Your task to perform on an android device: Open calendar and show me the first week of next month Image 0: 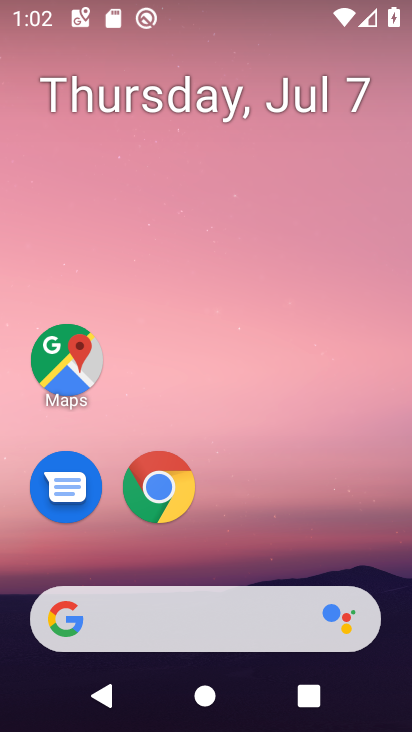
Step 0: drag from (358, 527) to (361, 92)
Your task to perform on an android device: Open calendar and show me the first week of next month Image 1: 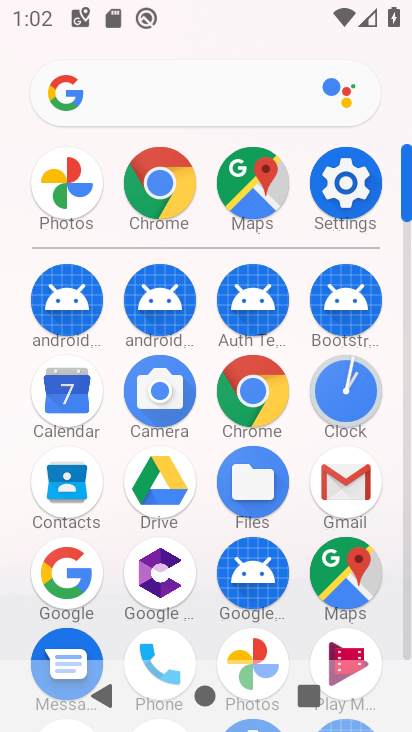
Step 1: click (66, 420)
Your task to perform on an android device: Open calendar and show me the first week of next month Image 2: 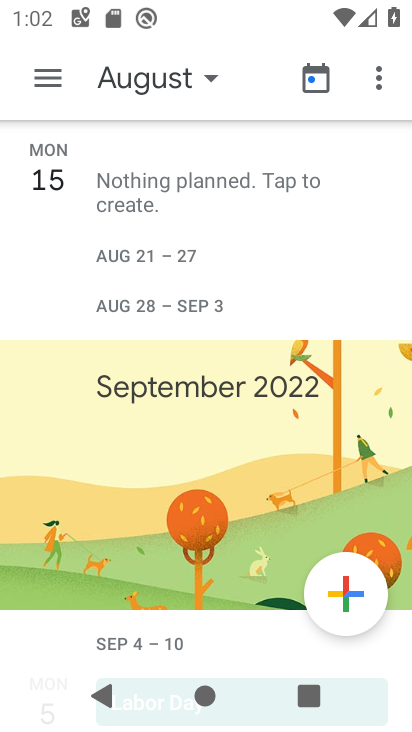
Step 2: click (212, 72)
Your task to perform on an android device: Open calendar and show me the first week of next month Image 3: 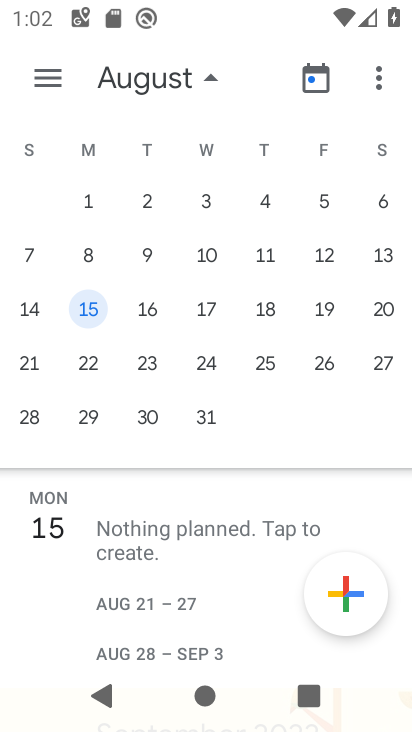
Step 3: click (91, 200)
Your task to perform on an android device: Open calendar and show me the first week of next month Image 4: 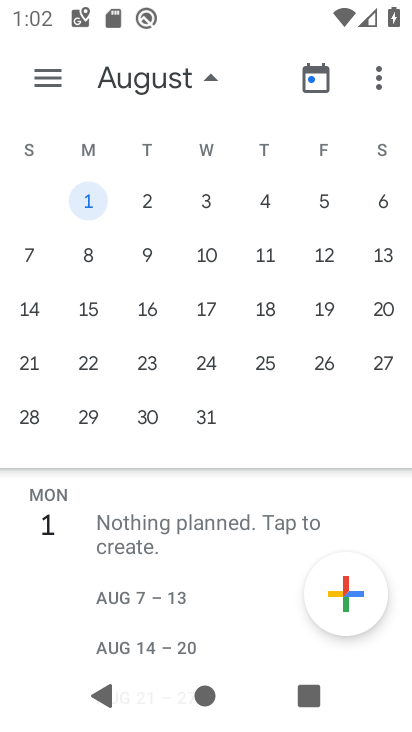
Step 4: task complete